Your task to perform on an android device: check data usage Image 0: 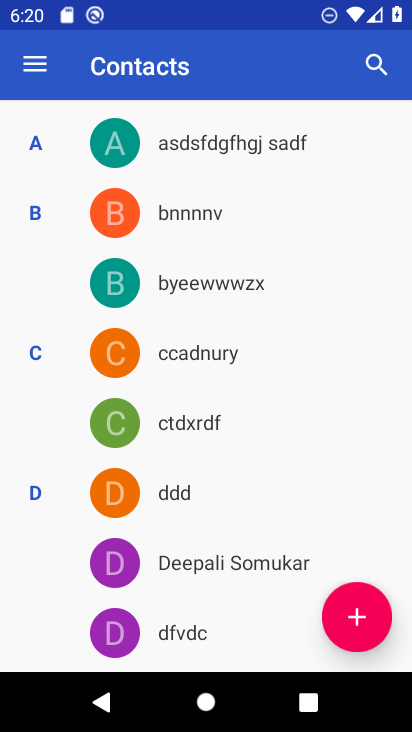
Step 0: press home button
Your task to perform on an android device: check data usage Image 1: 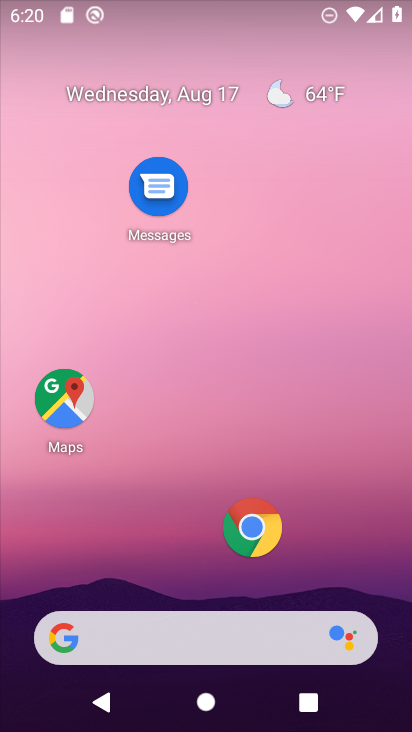
Step 1: drag from (132, 611) to (91, 283)
Your task to perform on an android device: check data usage Image 2: 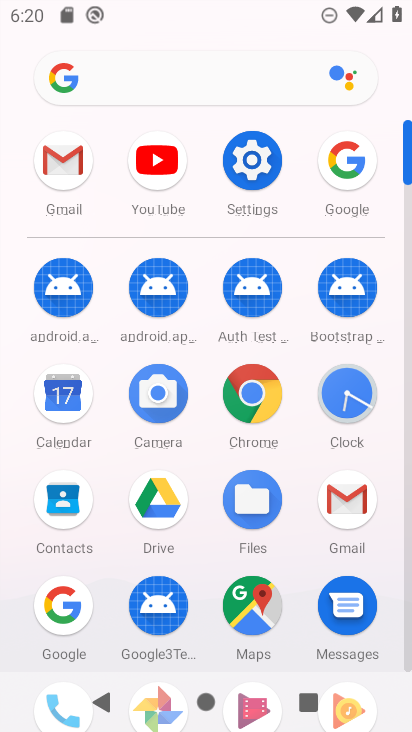
Step 2: click (251, 173)
Your task to perform on an android device: check data usage Image 3: 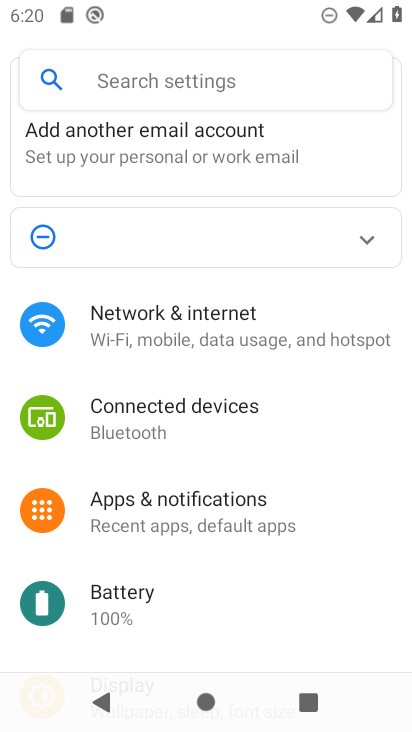
Step 3: click (180, 330)
Your task to perform on an android device: check data usage Image 4: 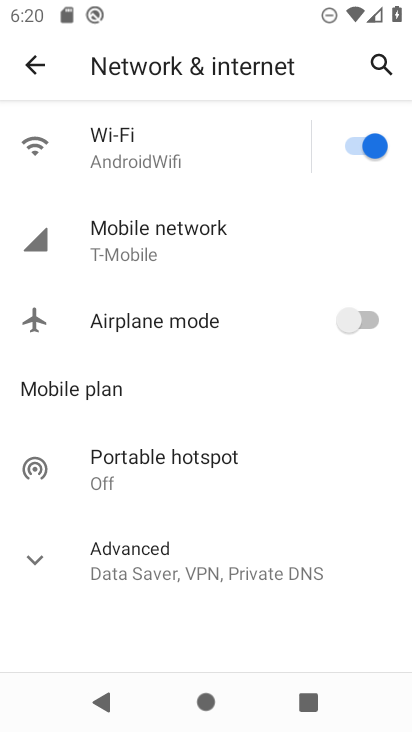
Step 4: click (112, 253)
Your task to perform on an android device: check data usage Image 5: 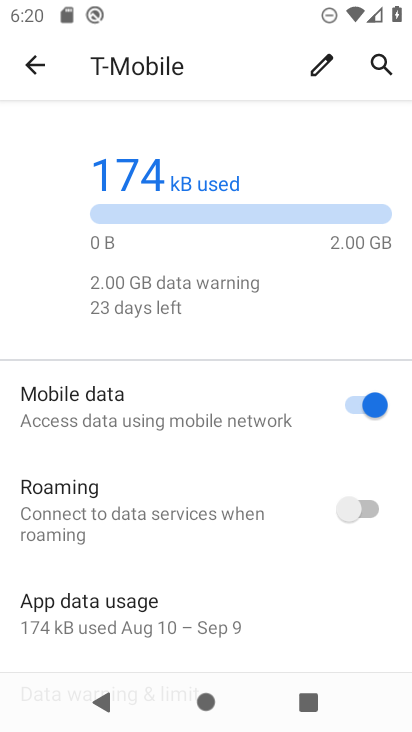
Step 5: task complete